Your task to perform on an android device: Open Google Maps and go to "Timeline" Image 0: 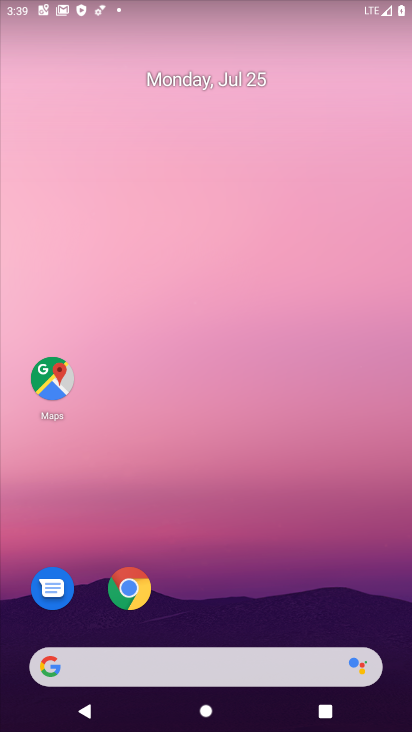
Step 0: click (45, 380)
Your task to perform on an android device: Open Google Maps and go to "Timeline" Image 1: 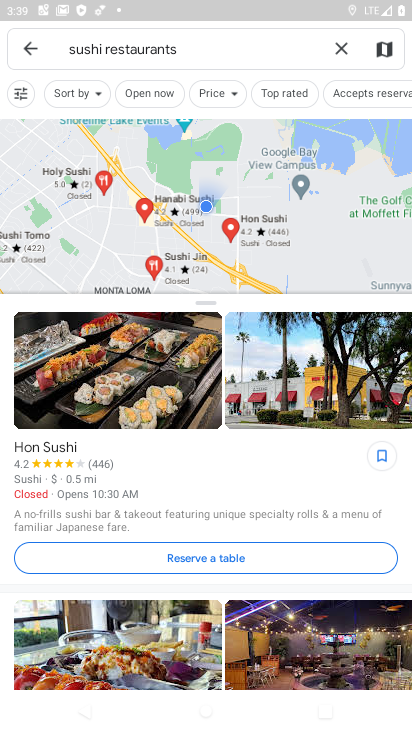
Step 1: click (22, 49)
Your task to perform on an android device: Open Google Maps and go to "Timeline" Image 2: 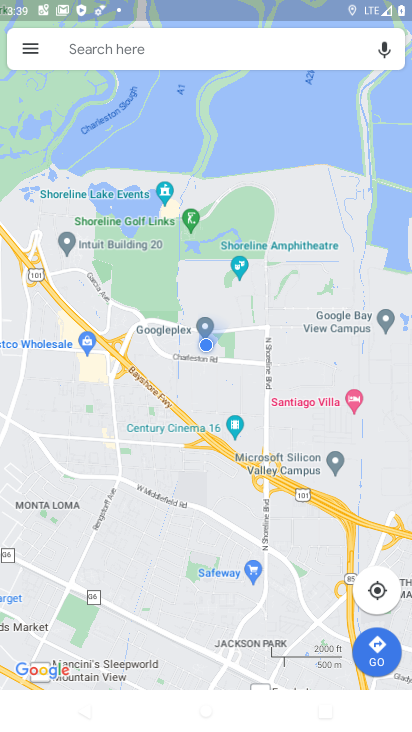
Step 2: click (27, 44)
Your task to perform on an android device: Open Google Maps and go to "Timeline" Image 3: 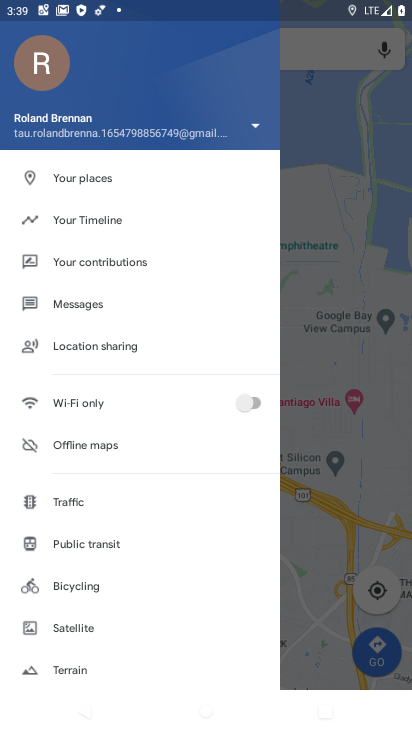
Step 3: click (94, 221)
Your task to perform on an android device: Open Google Maps and go to "Timeline" Image 4: 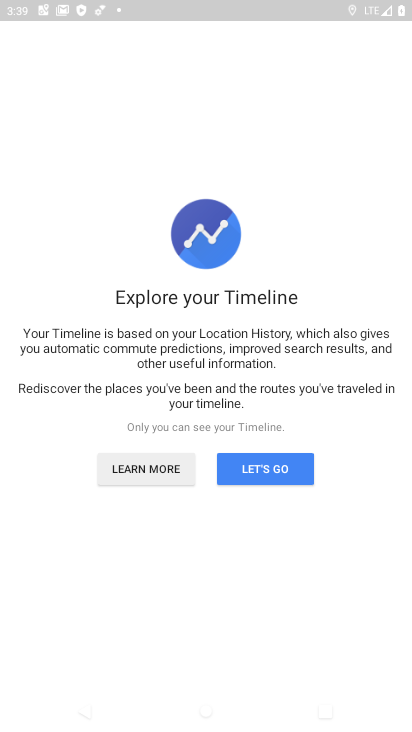
Step 4: click (245, 474)
Your task to perform on an android device: Open Google Maps and go to "Timeline" Image 5: 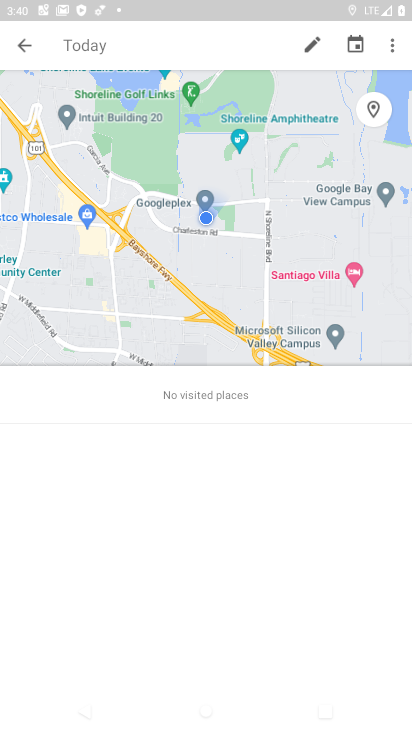
Step 5: click (23, 43)
Your task to perform on an android device: Open Google Maps and go to "Timeline" Image 6: 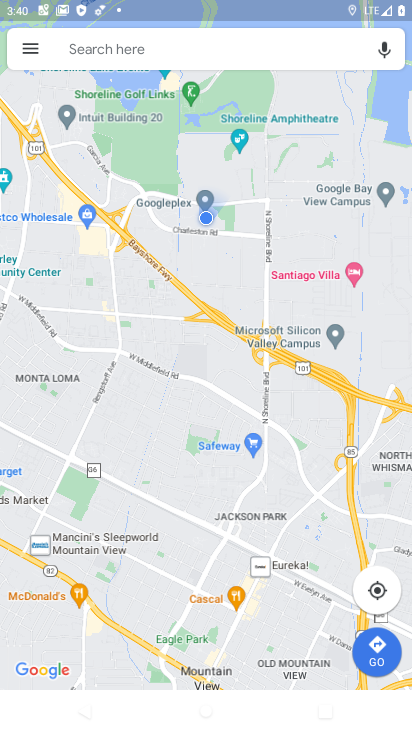
Step 6: click (22, 52)
Your task to perform on an android device: Open Google Maps and go to "Timeline" Image 7: 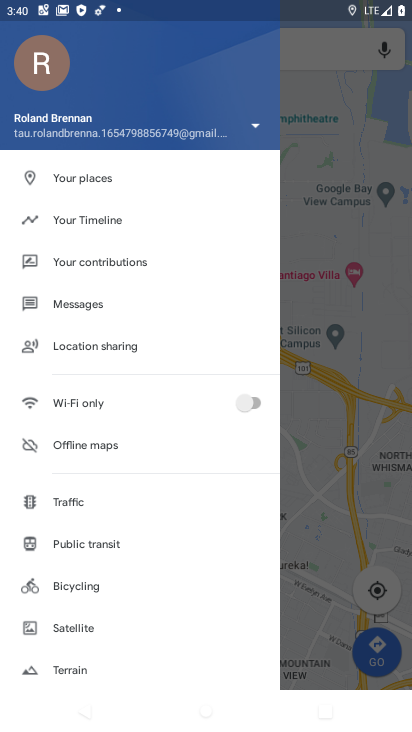
Step 7: click (89, 220)
Your task to perform on an android device: Open Google Maps and go to "Timeline" Image 8: 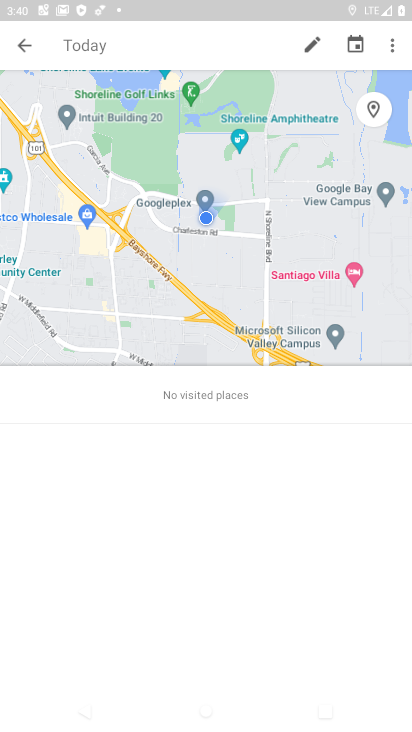
Step 8: task complete